Your task to perform on an android device: Find coffee shops on Maps Image 0: 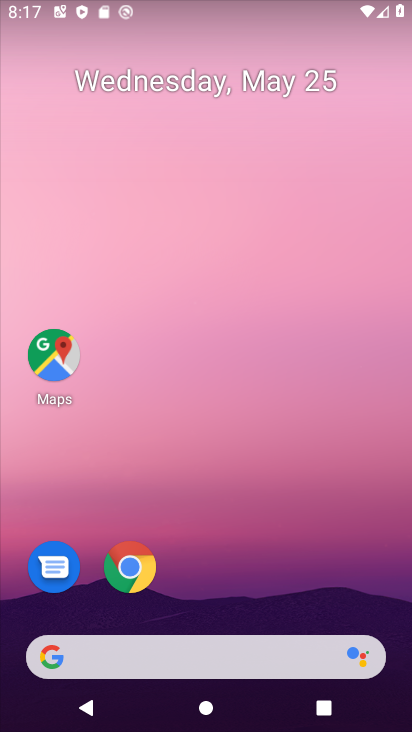
Step 0: click (74, 372)
Your task to perform on an android device: Find coffee shops on Maps Image 1: 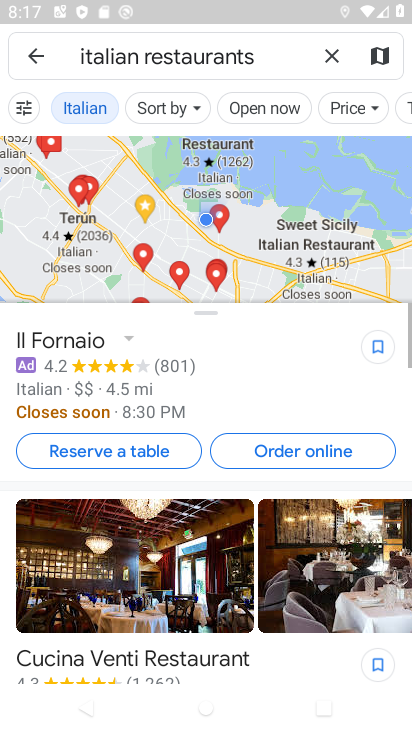
Step 1: click (271, 96)
Your task to perform on an android device: Find coffee shops on Maps Image 2: 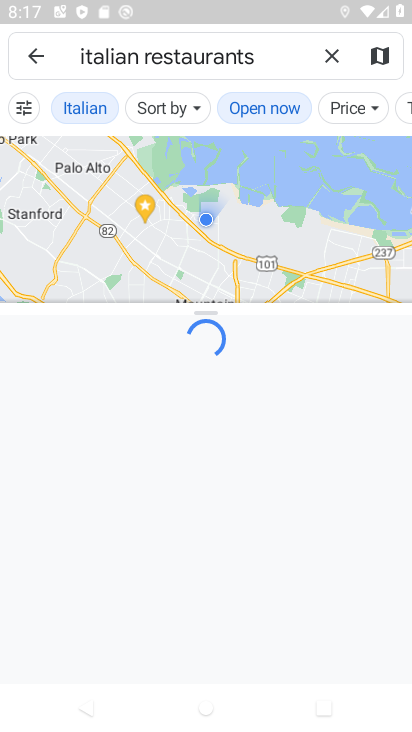
Step 2: click (332, 58)
Your task to perform on an android device: Find coffee shops on Maps Image 3: 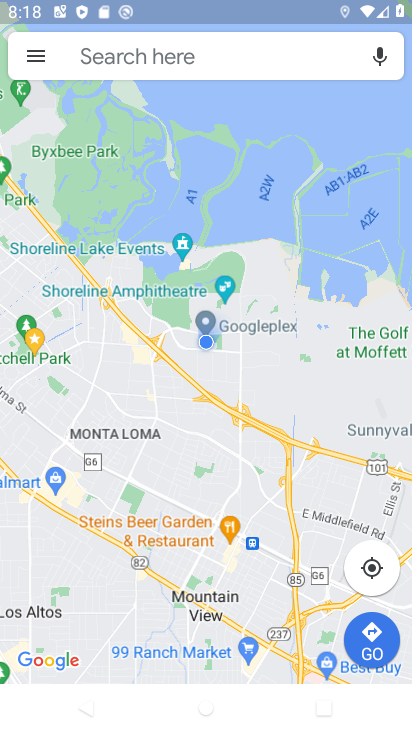
Step 3: click (275, 53)
Your task to perform on an android device: Find coffee shops on Maps Image 4: 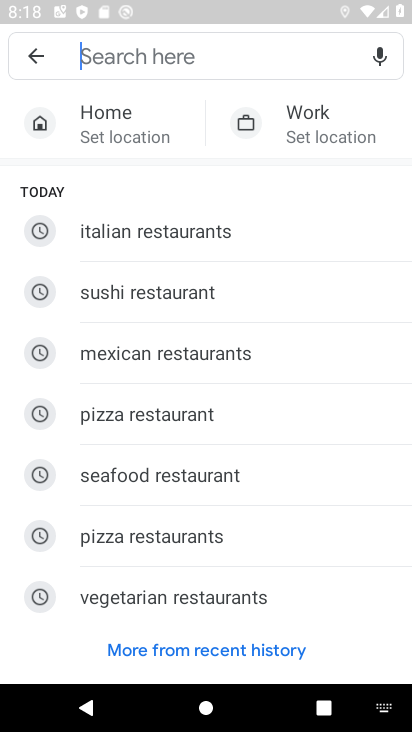
Step 4: type "coffee"
Your task to perform on an android device: Find coffee shops on Maps Image 5: 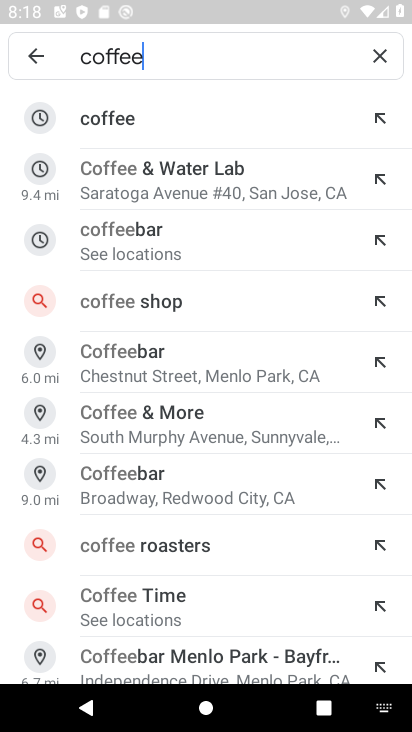
Step 5: click (206, 131)
Your task to perform on an android device: Find coffee shops on Maps Image 6: 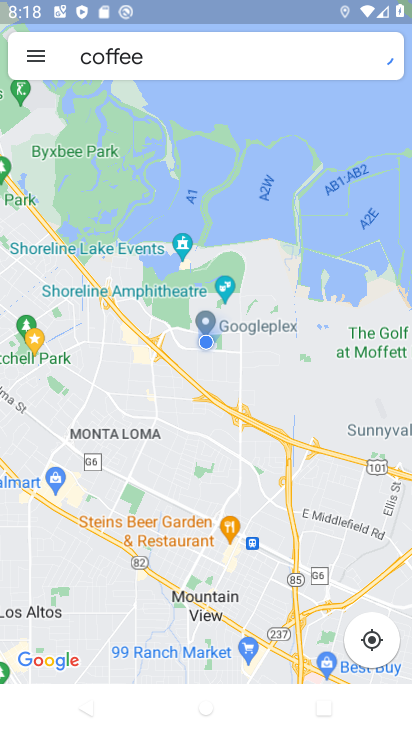
Step 6: task complete